Your task to perform on an android device: see sites visited before in the chrome app Image 0: 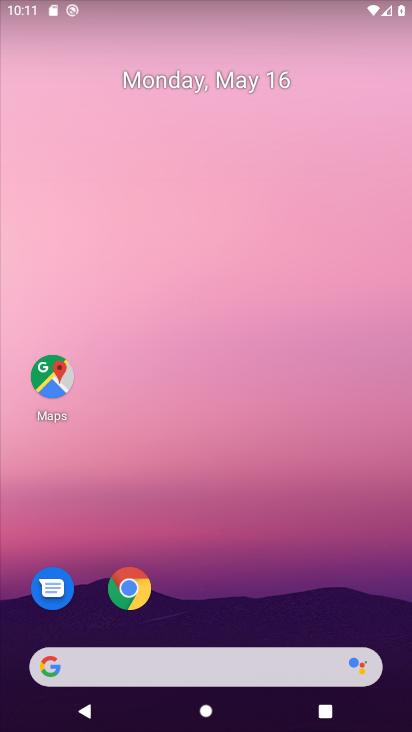
Step 0: click (126, 586)
Your task to perform on an android device: see sites visited before in the chrome app Image 1: 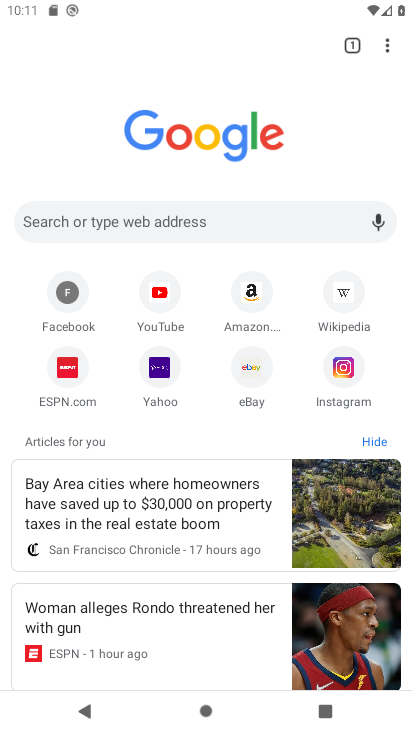
Step 1: click (390, 47)
Your task to perform on an android device: see sites visited before in the chrome app Image 2: 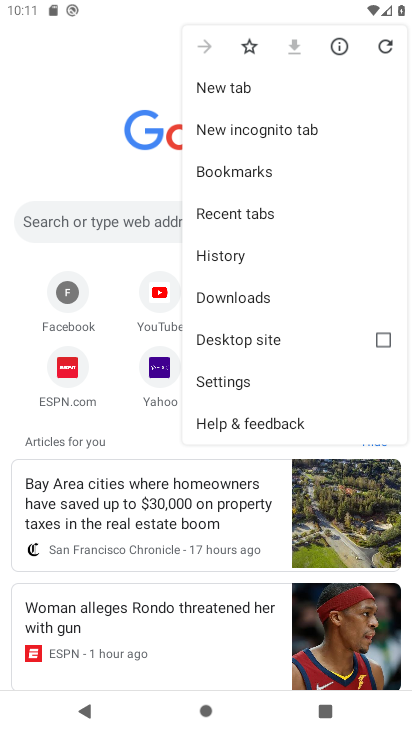
Step 2: click (258, 250)
Your task to perform on an android device: see sites visited before in the chrome app Image 3: 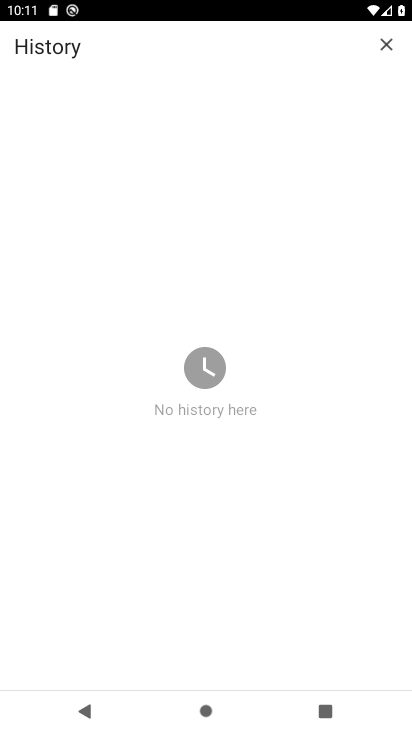
Step 3: task complete